Your task to perform on an android device: open a bookmark in the chrome app Image 0: 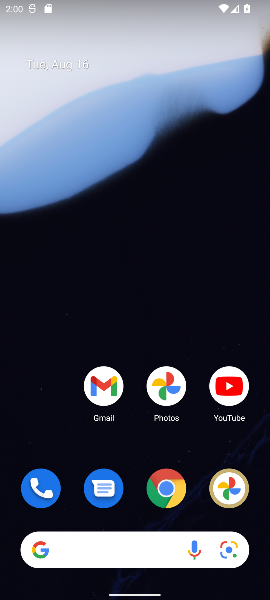
Step 0: drag from (137, 318) to (114, 47)
Your task to perform on an android device: open a bookmark in the chrome app Image 1: 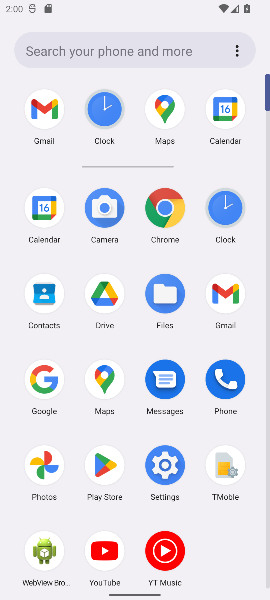
Step 1: click (174, 206)
Your task to perform on an android device: open a bookmark in the chrome app Image 2: 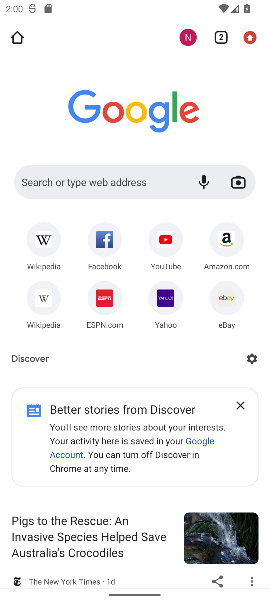
Step 2: task complete